Your task to perform on an android device: find photos in the google photos app Image 0: 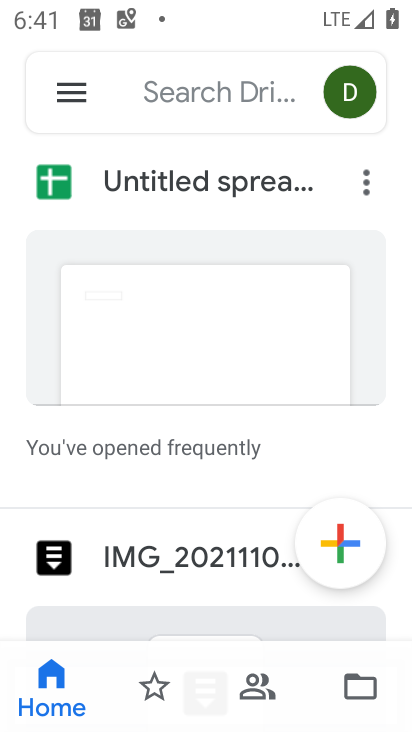
Step 0: press home button
Your task to perform on an android device: find photos in the google photos app Image 1: 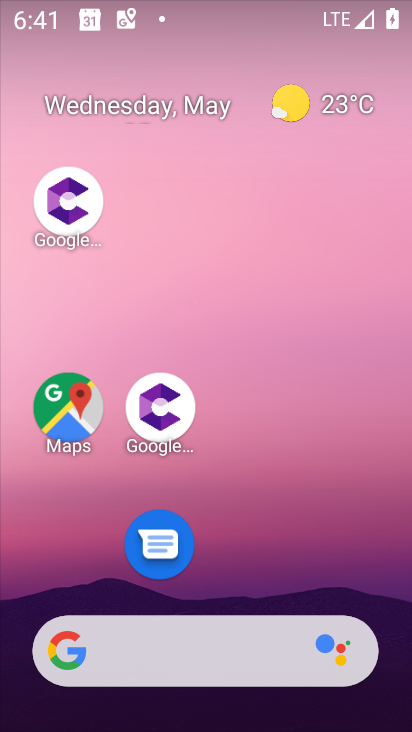
Step 1: drag from (254, 552) to (201, 75)
Your task to perform on an android device: find photos in the google photos app Image 2: 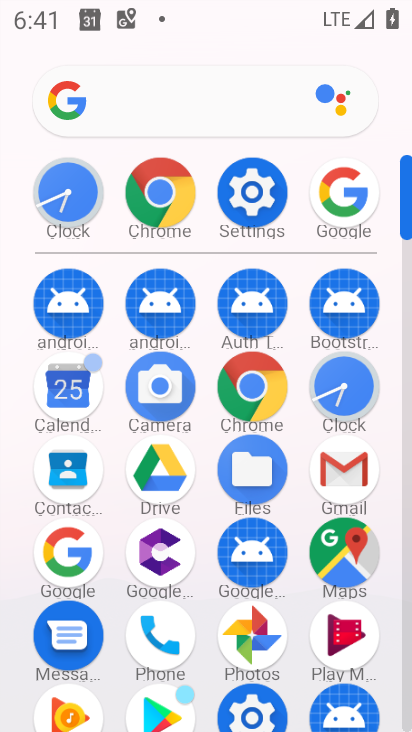
Step 2: click (253, 627)
Your task to perform on an android device: find photos in the google photos app Image 3: 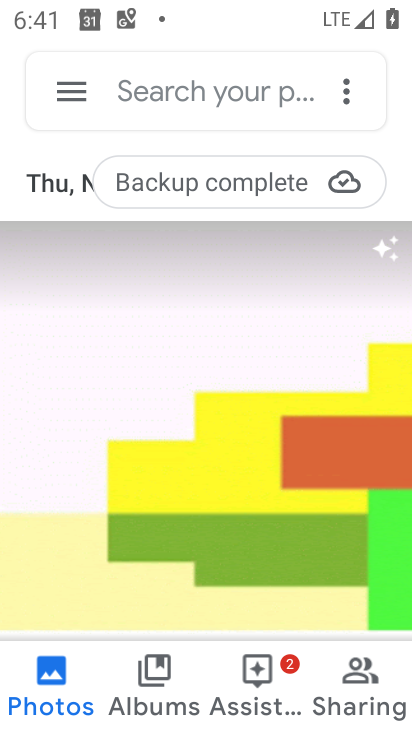
Step 3: click (152, 93)
Your task to perform on an android device: find photos in the google photos app Image 4: 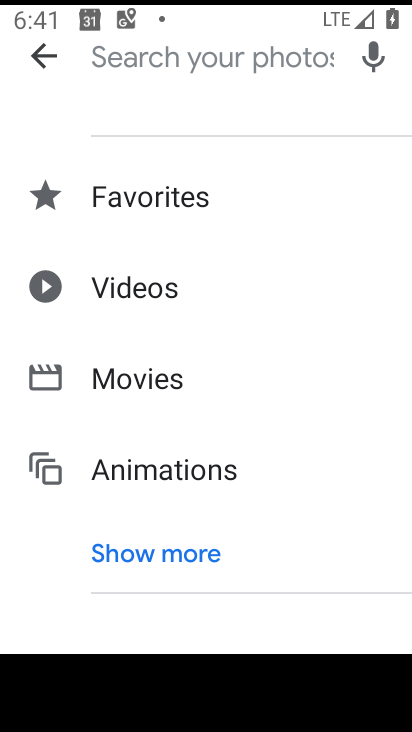
Step 4: task complete